Your task to perform on an android device: Open settings on Google Maps Image 0: 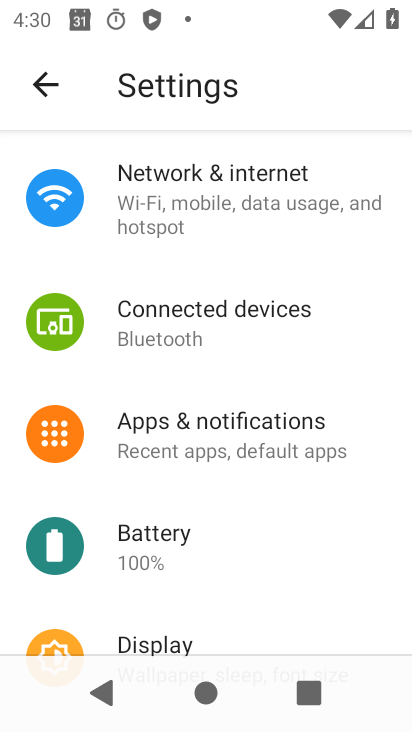
Step 0: press home button
Your task to perform on an android device: Open settings on Google Maps Image 1: 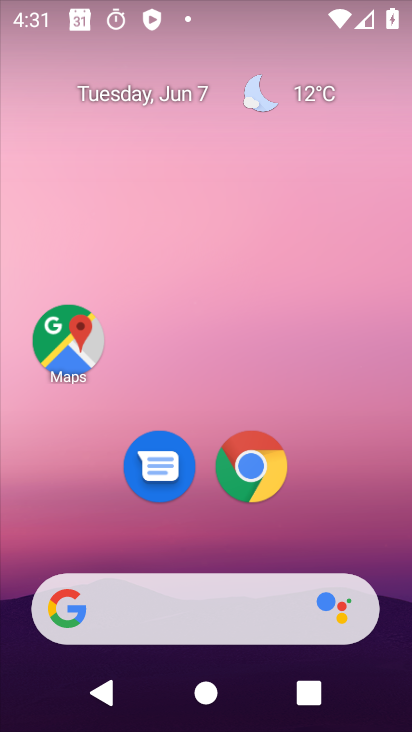
Step 1: click (87, 333)
Your task to perform on an android device: Open settings on Google Maps Image 2: 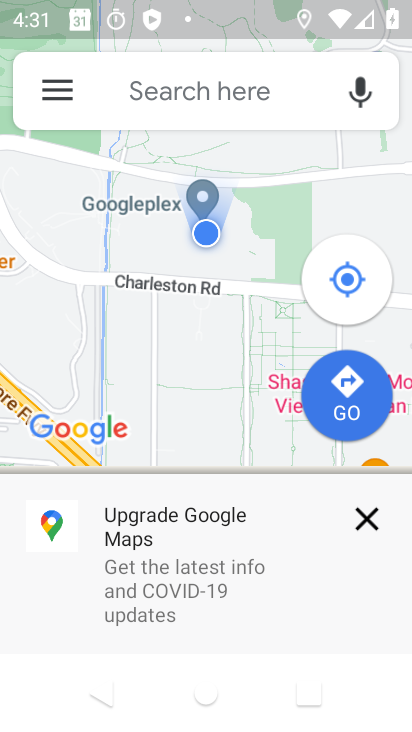
Step 2: click (44, 97)
Your task to perform on an android device: Open settings on Google Maps Image 3: 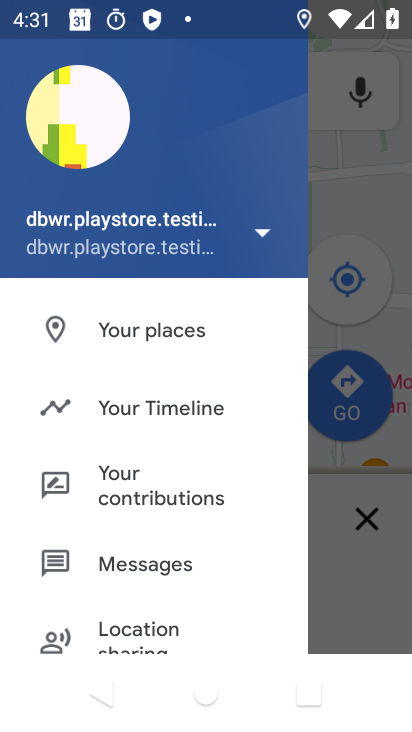
Step 3: drag from (196, 620) to (169, 110)
Your task to perform on an android device: Open settings on Google Maps Image 4: 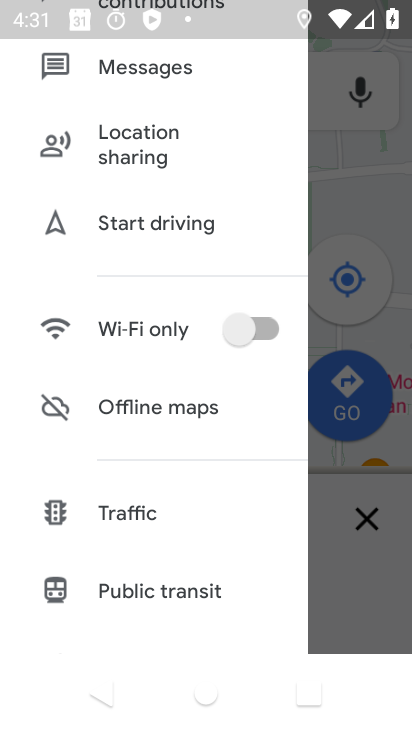
Step 4: drag from (172, 623) to (147, 10)
Your task to perform on an android device: Open settings on Google Maps Image 5: 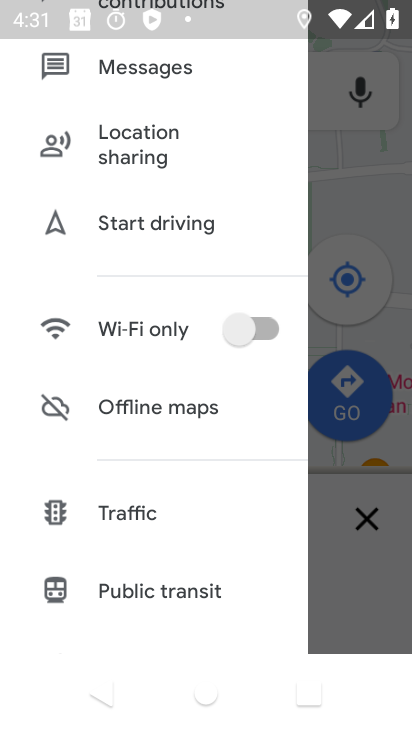
Step 5: drag from (158, 543) to (155, 24)
Your task to perform on an android device: Open settings on Google Maps Image 6: 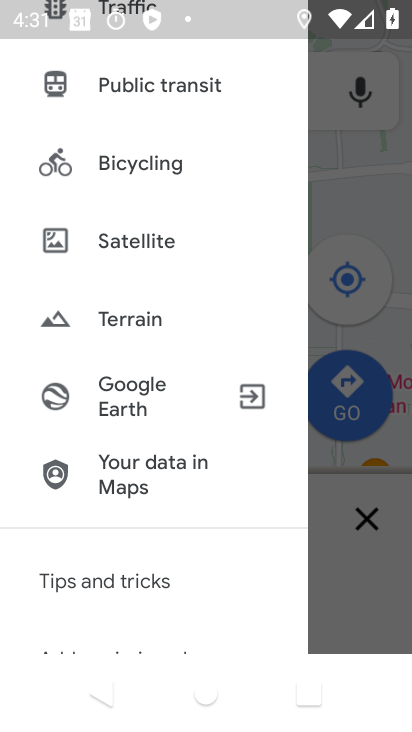
Step 6: drag from (173, 576) to (135, 58)
Your task to perform on an android device: Open settings on Google Maps Image 7: 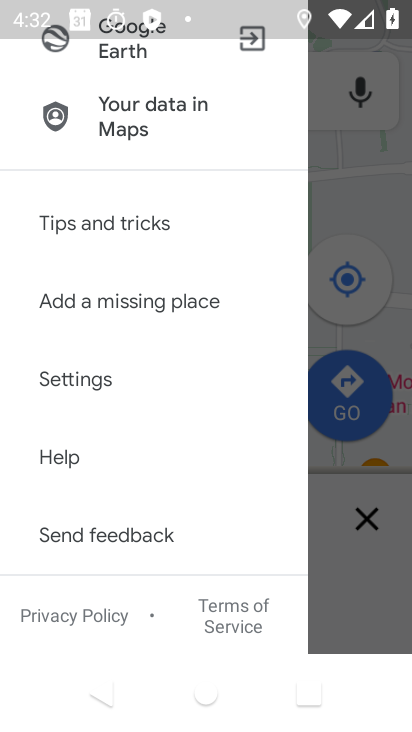
Step 7: click (190, 370)
Your task to perform on an android device: Open settings on Google Maps Image 8: 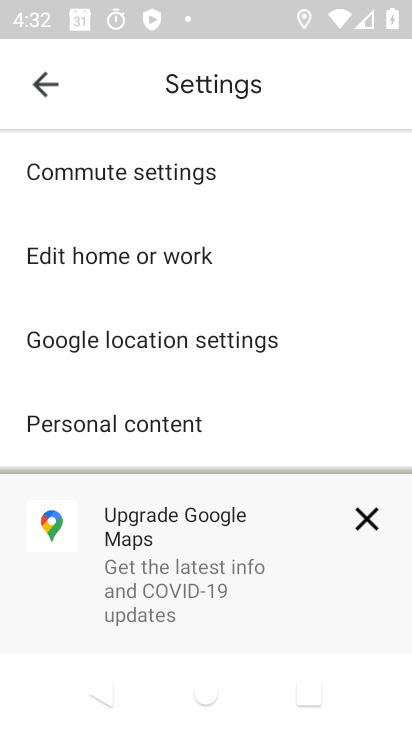
Step 8: click (366, 526)
Your task to perform on an android device: Open settings on Google Maps Image 9: 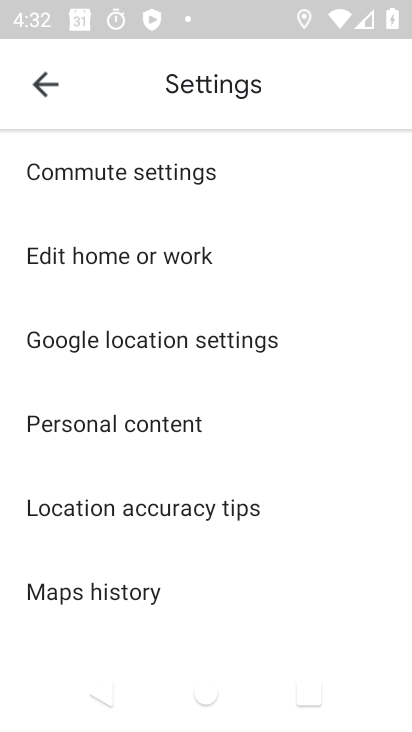
Step 9: task complete